Your task to perform on an android device: Clear the shopping cart on ebay. Search for rayovac triple a on ebay, select the first entry, and add it to the cart. Image 0: 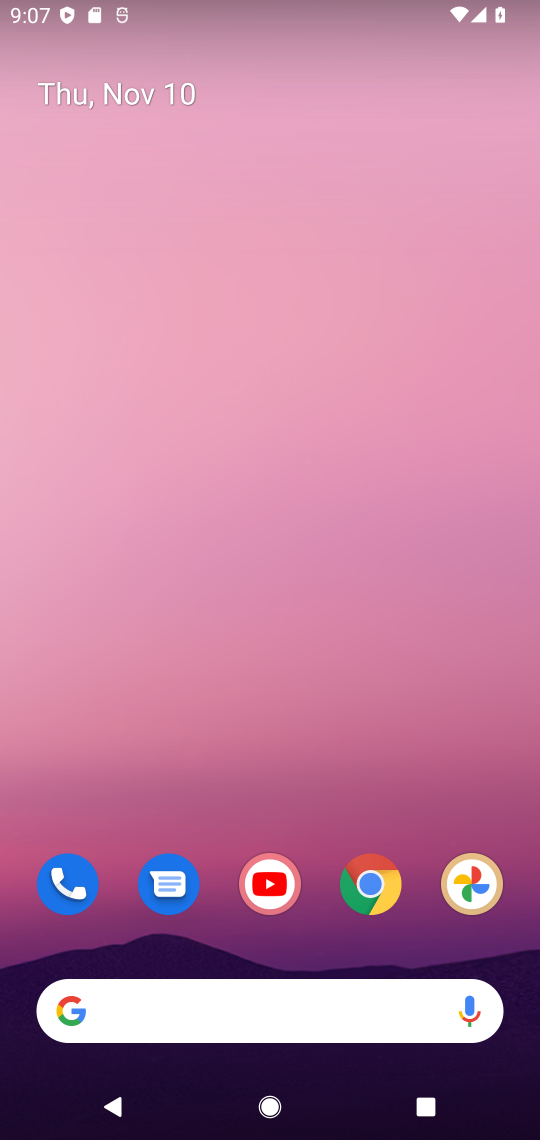
Step 0: click (256, 1023)
Your task to perform on an android device: Clear the shopping cart on ebay. Search for rayovac triple a on ebay, select the first entry, and add it to the cart. Image 1: 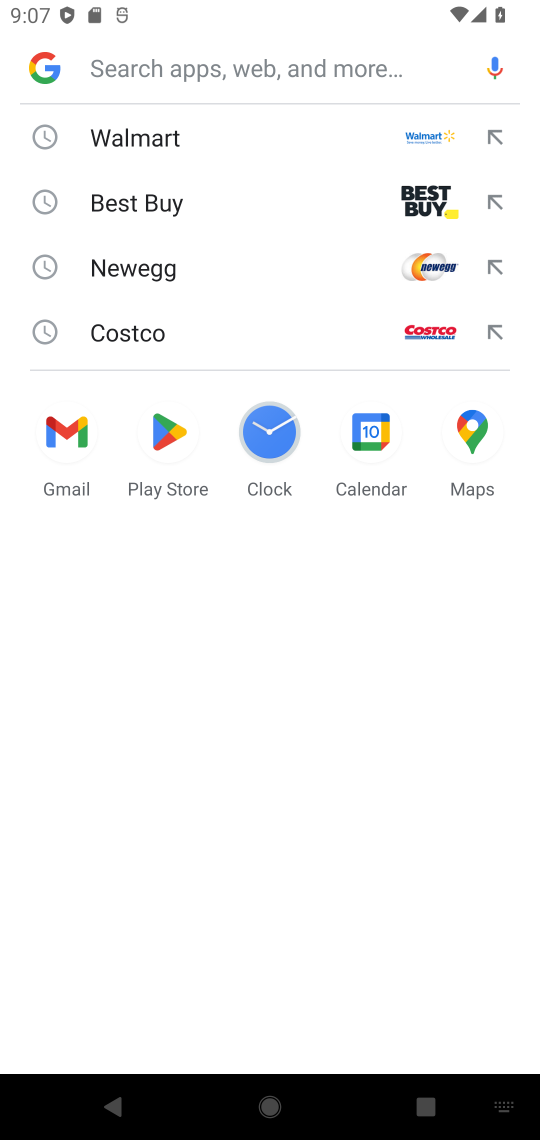
Step 1: type "ebay"
Your task to perform on an android device: Clear the shopping cart on ebay. Search for rayovac triple a on ebay, select the first entry, and add it to the cart. Image 2: 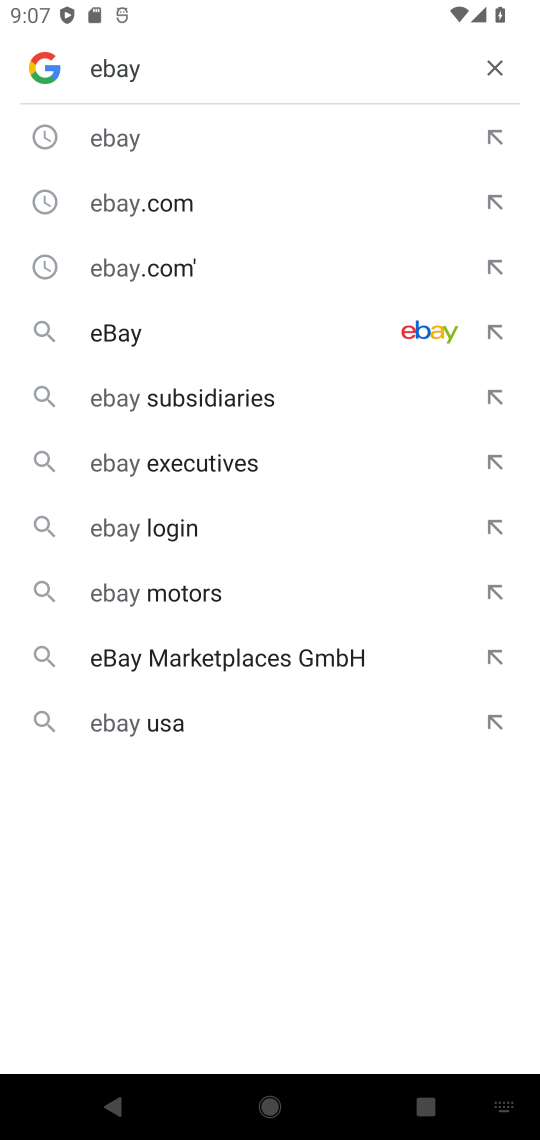
Step 2: click (260, 347)
Your task to perform on an android device: Clear the shopping cart on ebay. Search for rayovac triple a on ebay, select the first entry, and add it to the cart. Image 3: 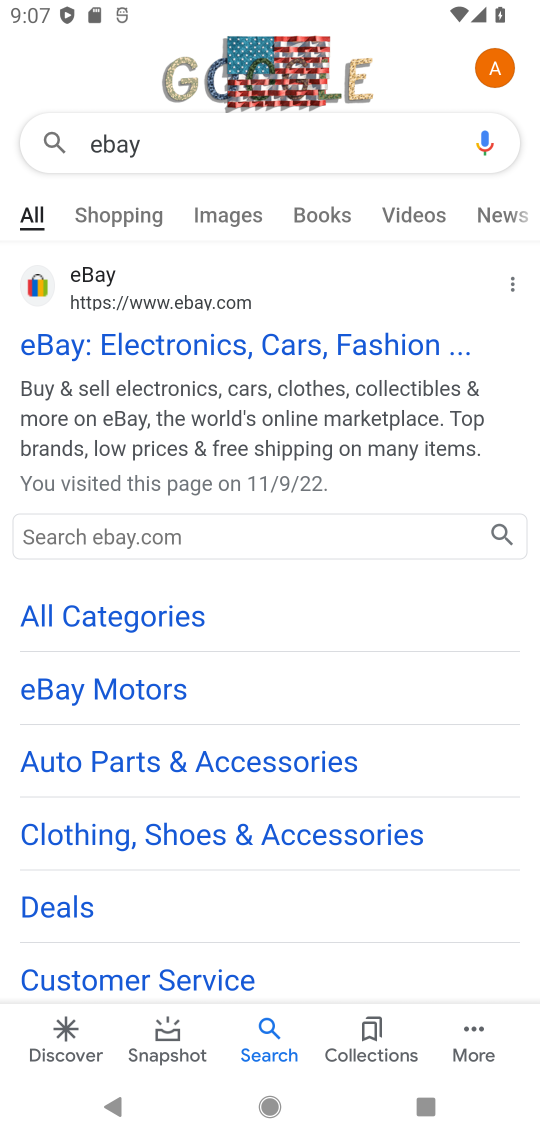
Step 3: click (92, 286)
Your task to perform on an android device: Clear the shopping cart on ebay. Search for rayovac triple a on ebay, select the first entry, and add it to the cart. Image 4: 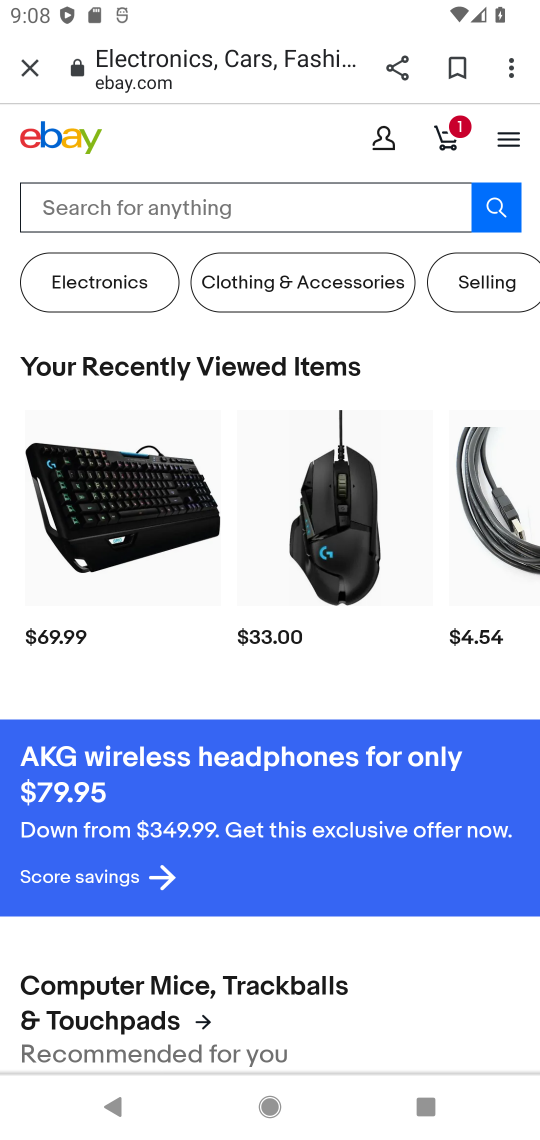
Step 4: click (309, 205)
Your task to perform on an android device: Clear the shopping cart on ebay. Search for rayovac triple a on ebay, select the first entry, and add it to the cart. Image 5: 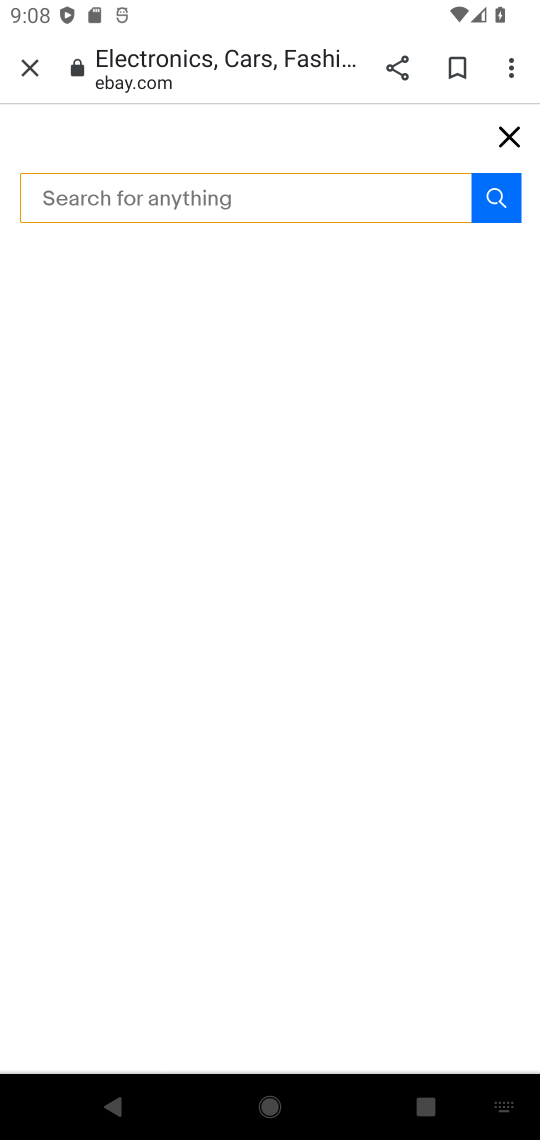
Step 5: type " rayovac triple a "
Your task to perform on an android device: Clear the shopping cart on ebay. Search for rayovac triple a on ebay, select the first entry, and add it to the cart. Image 6: 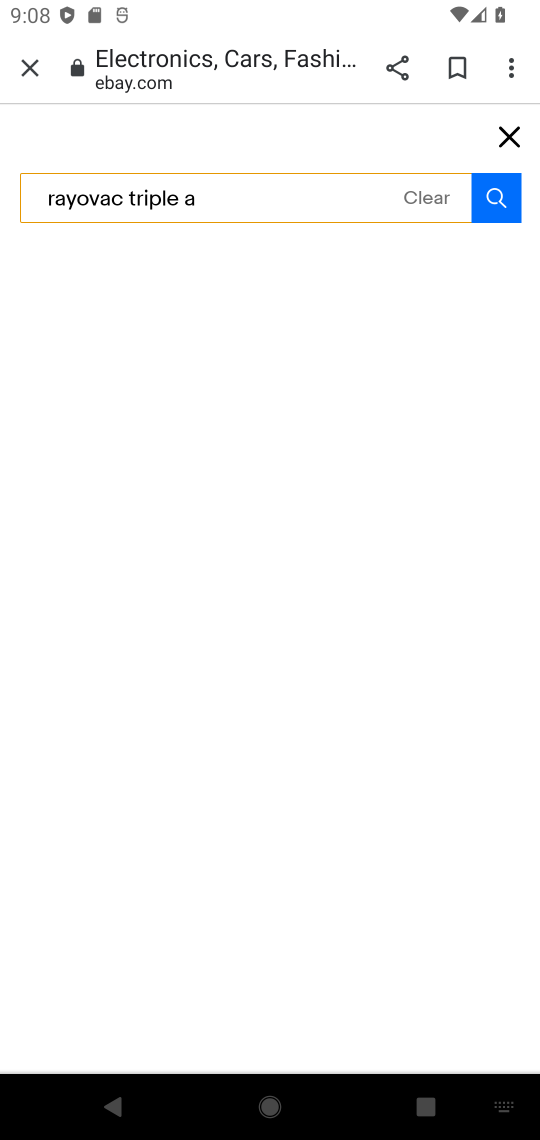
Step 6: click (496, 206)
Your task to perform on an android device: Clear the shopping cart on ebay. Search for rayovac triple a on ebay, select the first entry, and add it to the cart. Image 7: 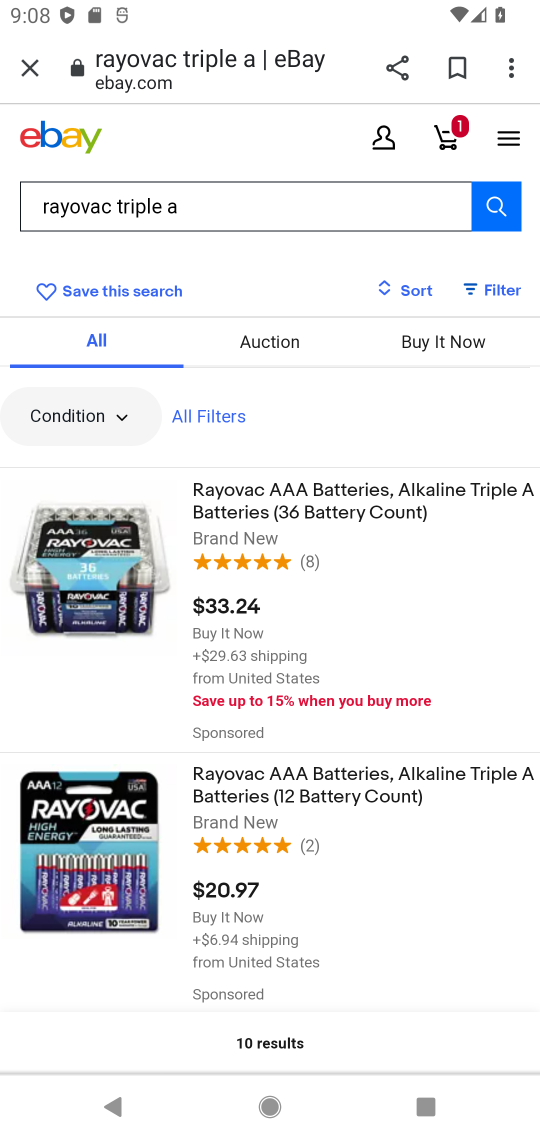
Step 7: click (197, 513)
Your task to perform on an android device: Clear the shopping cart on ebay. Search for rayovac triple a on ebay, select the first entry, and add it to the cart. Image 8: 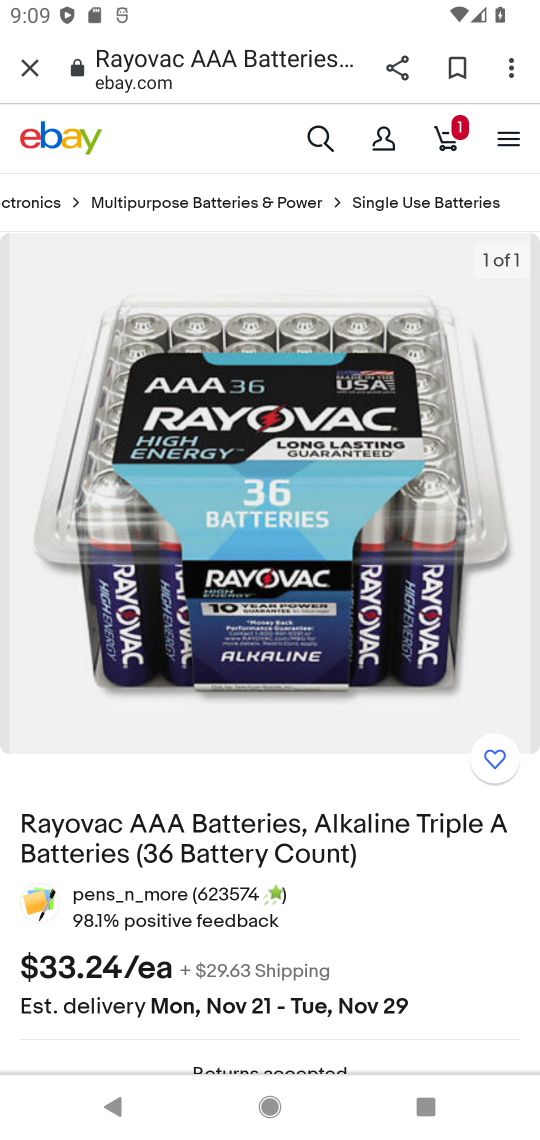
Step 8: drag from (232, 802) to (266, 369)
Your task to perform on an android device: Clear the shopping cart on ebay. Search for rayovac triple a on ebay, select the first entry, and add it to the cart. Image 9: 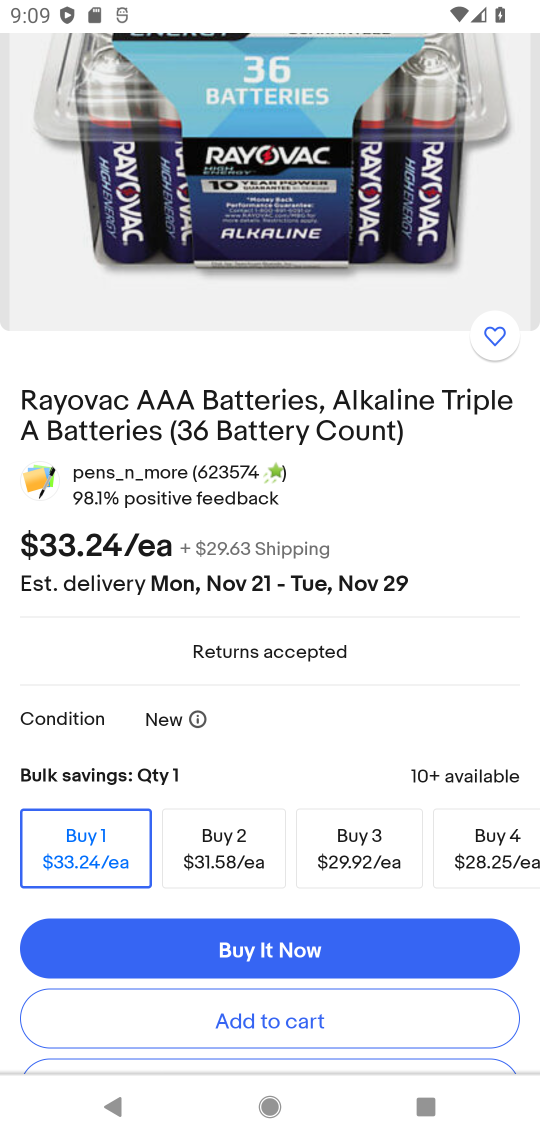
Step 9: drag from (328, 925) to (328, 1063)
Your task to perform on an android device: Clear the shopping cart on ebay. Search for rayovac triple a on ebay, select the first entry, and add it to the cart. Image 10: 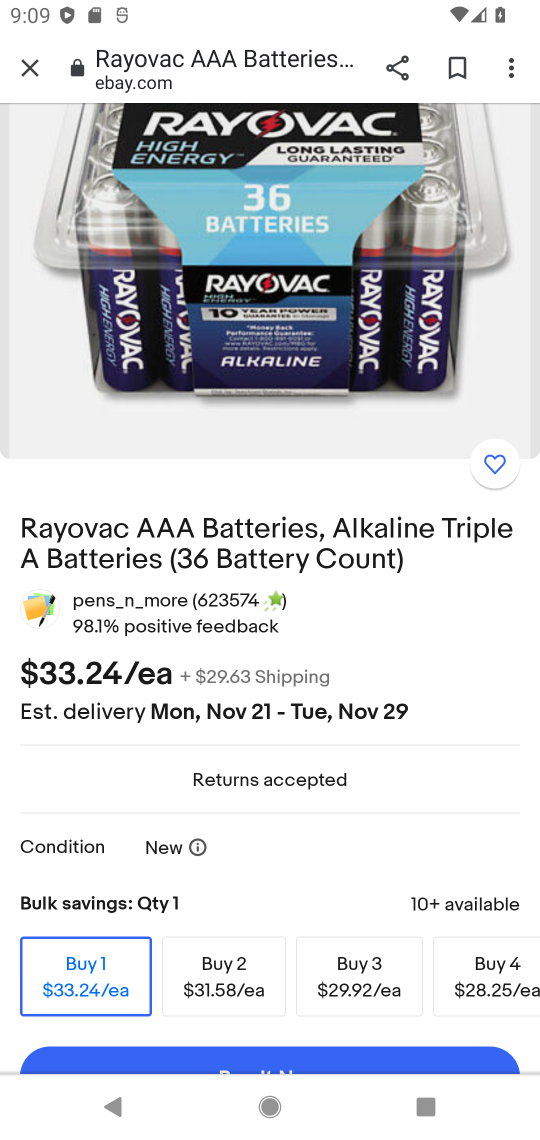
Step 10: drag from (428, 380) to (407, 699)
Your task to perform on an android device: Clear the shopping cart on ebay. Search for rayovac triple a on ebay, select the first entry, and add it to the cart. Image 11: 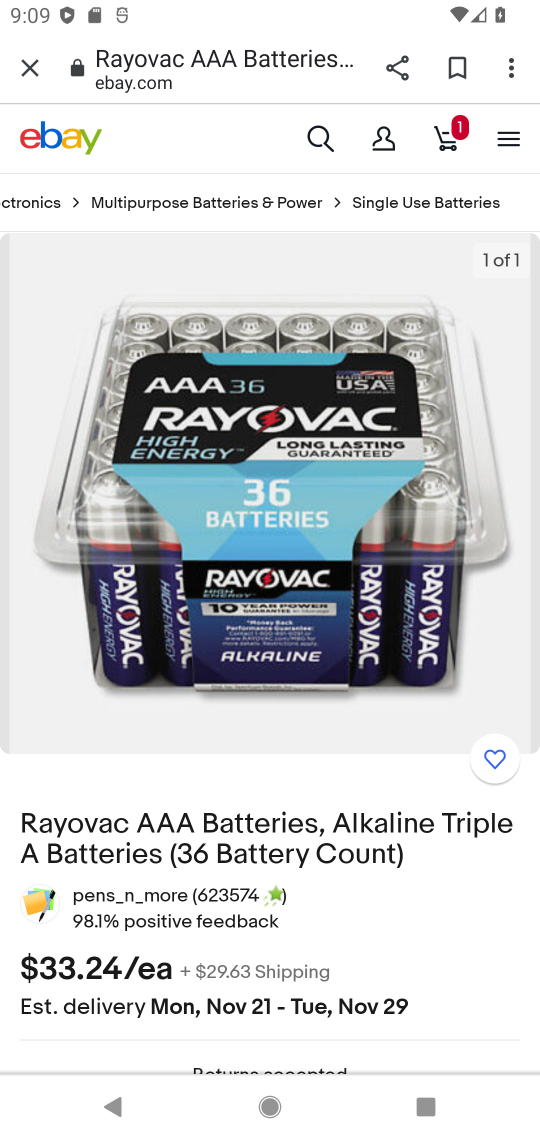
Step 11: click (450, 117)
Your task to perform on an android device: Clear the shopping cart on ebay. Search for rayovac triple a on ebay, select the first entry, and add it to the cart. Image 12: 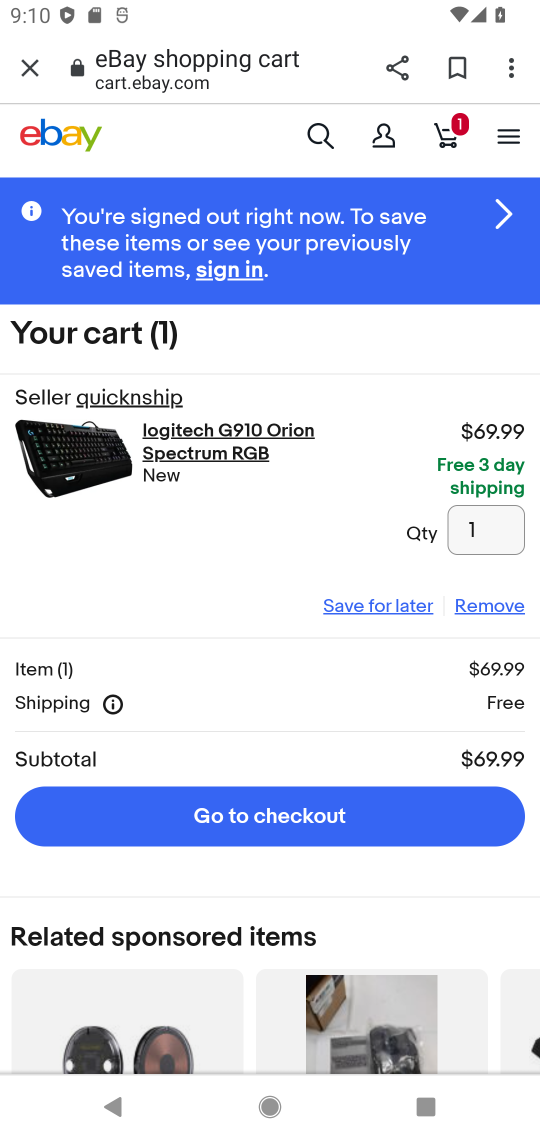
Step 12: click (490, 604)
Your task to perform on an android device: Clear the shopping cart on ebay. Search for rayovac triple a on ebay, select the first entry, and add it to the cart. Image 13: 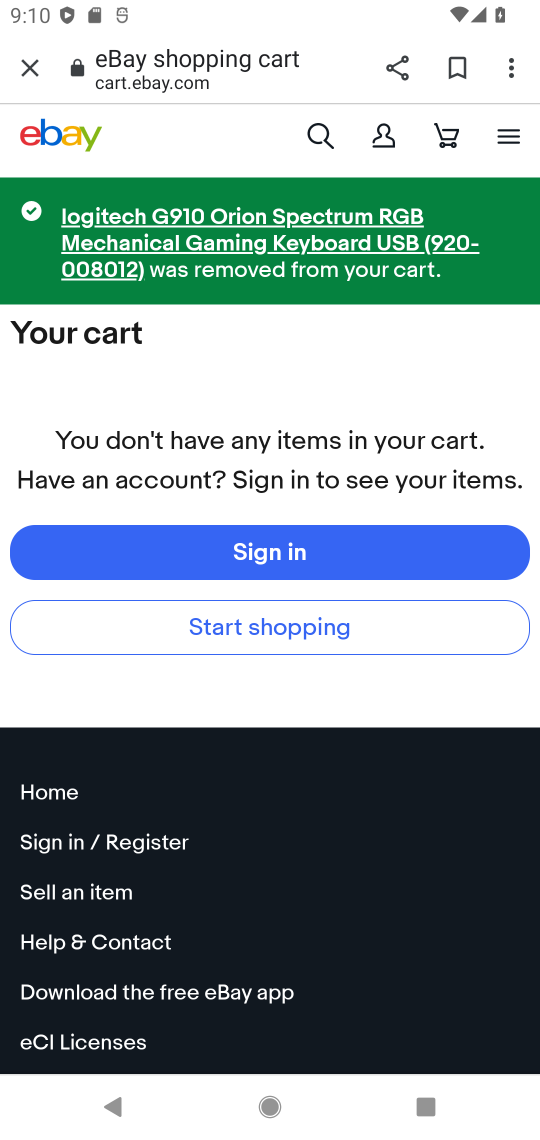
Step 13: click (319, 119)
Your task to perform on an android device: Clear the shopping cart on ebay. Search for rayovac triple a on ebay, select the first entry, and add it to the cart. Image 14: 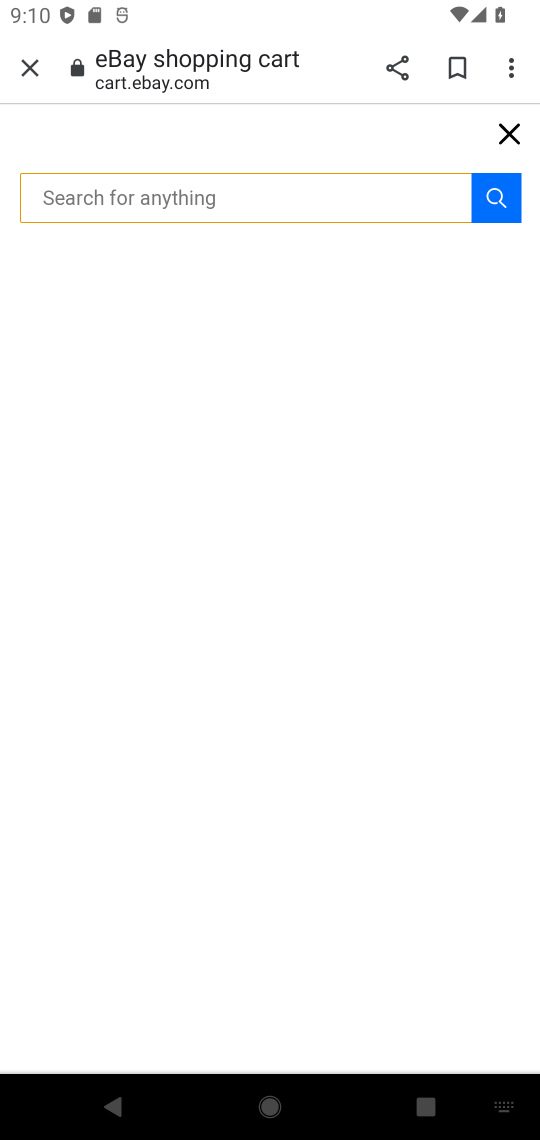
Step 14: type "rayovac"
Your task to perform on an android device: Clear the shopping cart on ebay. Search for rayovac triple a on ebay, select the first entry, and add it to the cart. Image 15: 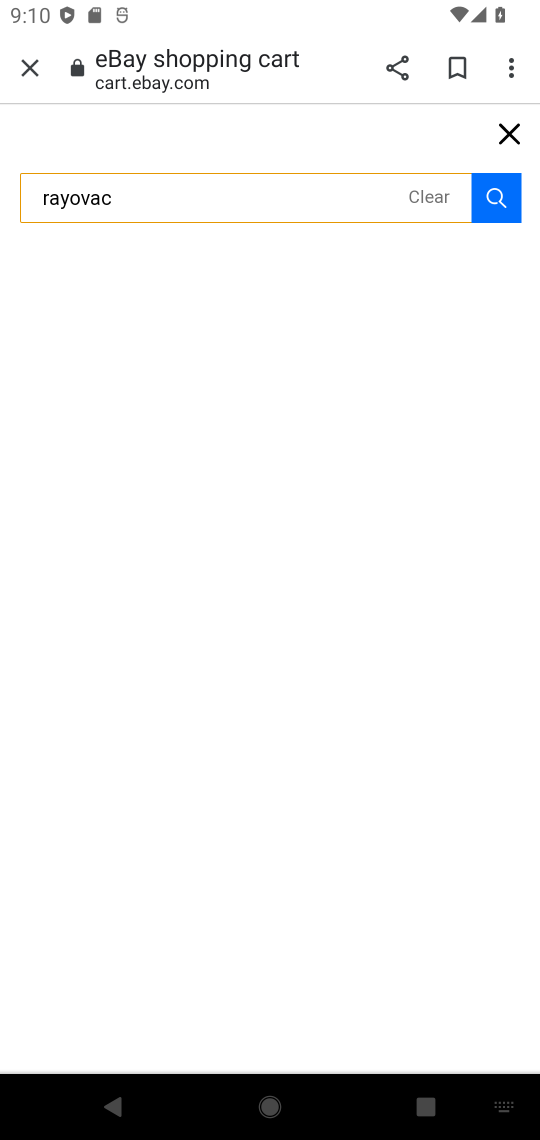
Step 15: click (489, 195)
Your task to perform on an android device: Clear the shopping cart on ebay. Search for rayovac triple a on ebay, select the first entry, and add it to the cart. Image 16: 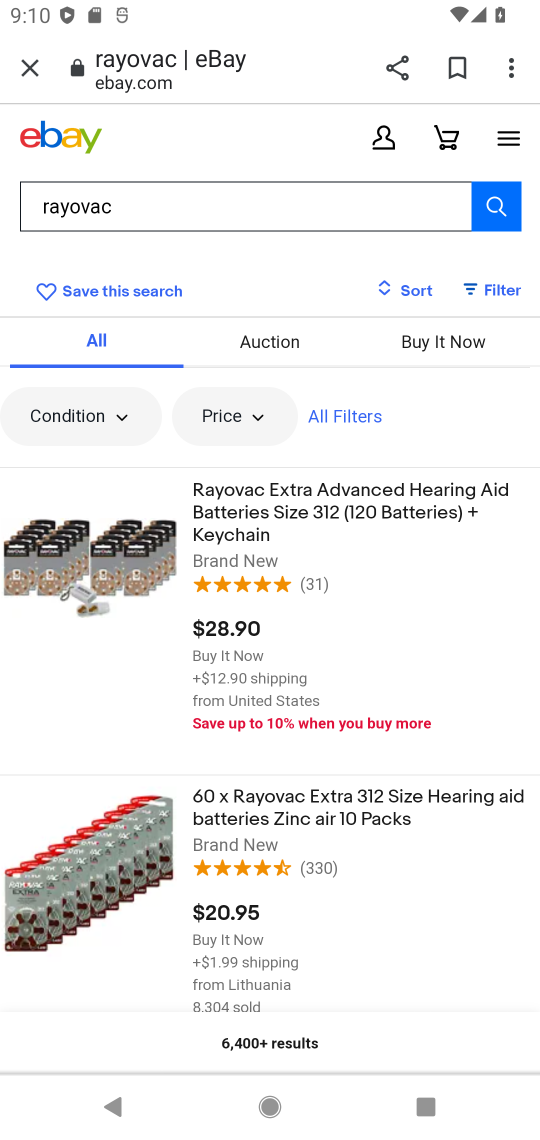
Step 16: click (250, 494)
Your task to perform on an android device: Clear the shopping cart on ebay. Search for rayovac triple a on ebay, select the first entry, and add it to the cart. Image 17: 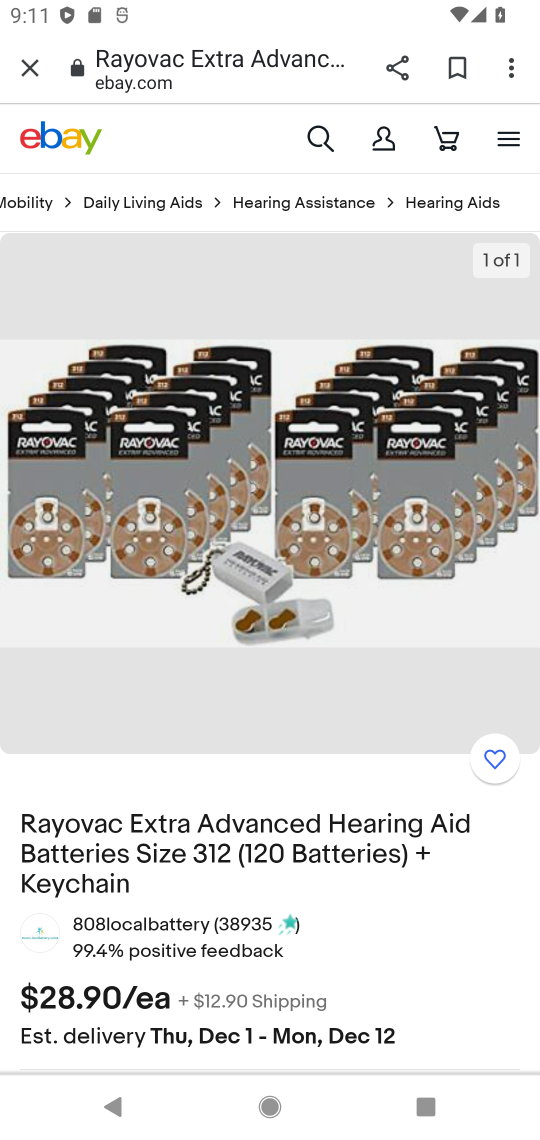
Step 17: drag from (153, 401) to (208, 41)
Your task to perform on an android device: Clear the shopping cart on ebay. Search for rayovac triple a on ebay, select the first entry, and add it to the cart. Image 18: 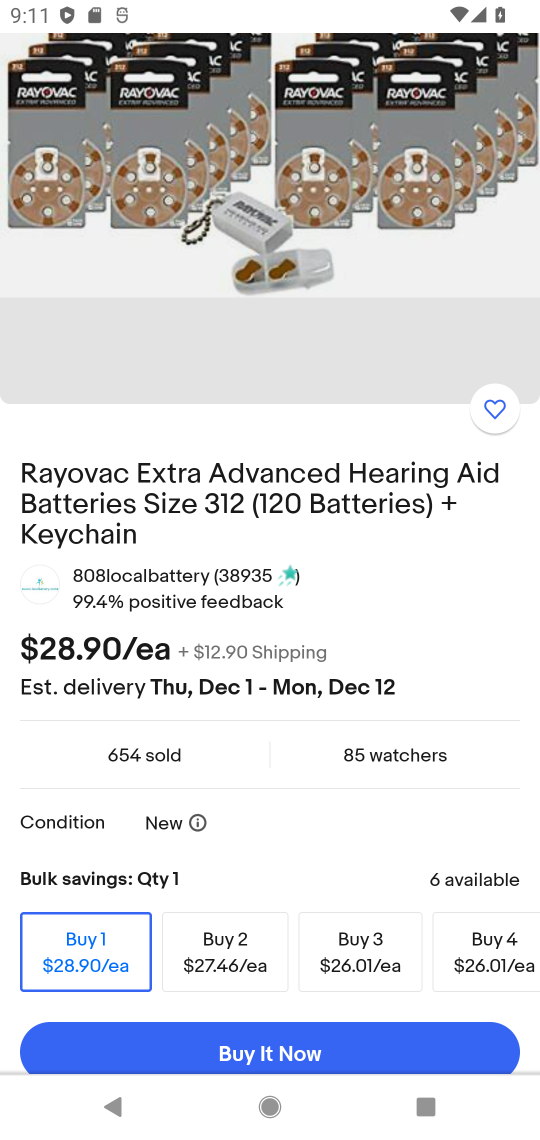
Step 18: drag from (216, 853) to (295, 509)
Your task to perform on an android device: Clear the shopping cart on ebay. Search for rayovac triple a on ebay, select the first entry, and add it to the cart. Image 19: 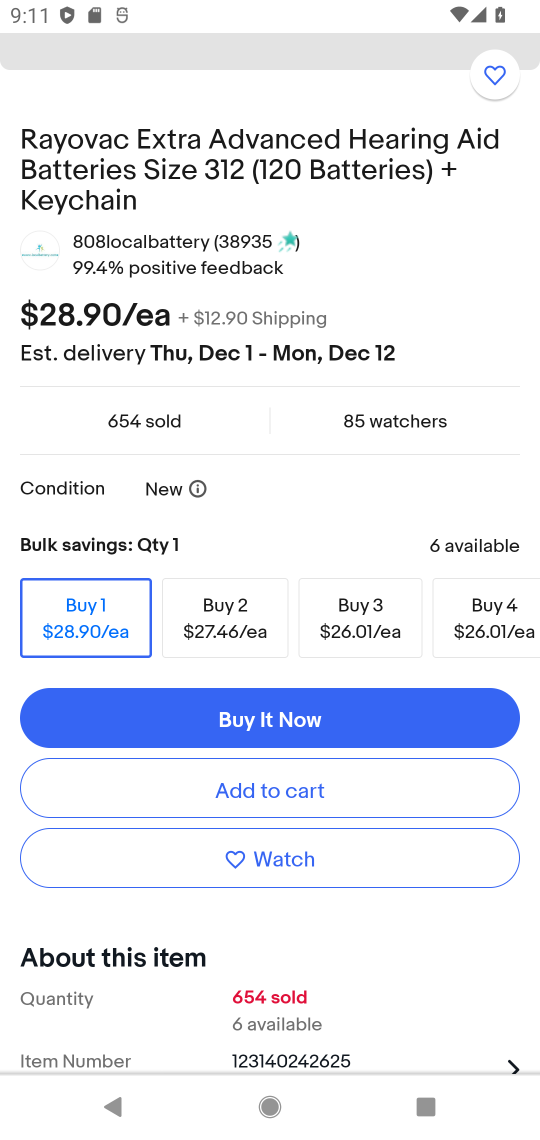
Step 19: click (245, 785)
Your task to perform on an android device: Clear the shopping cart on ebay. Search for rayovac triple a on ebay, select the first entry, and add it to the cart. Image 20: 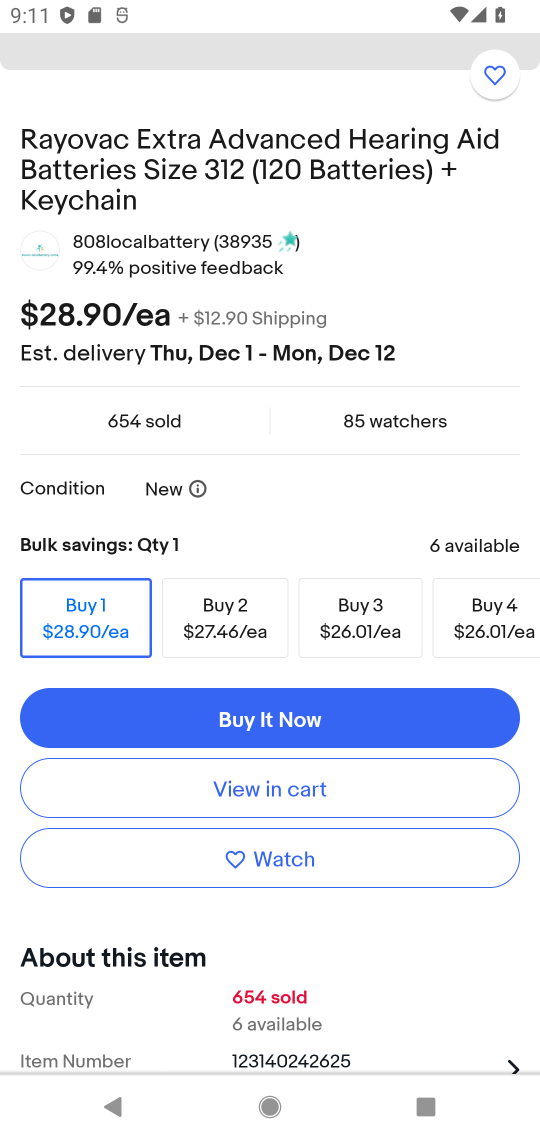
Step 20: task complete